Your task to perform on an android device: Open Chrome and go to the settings page Image 0: 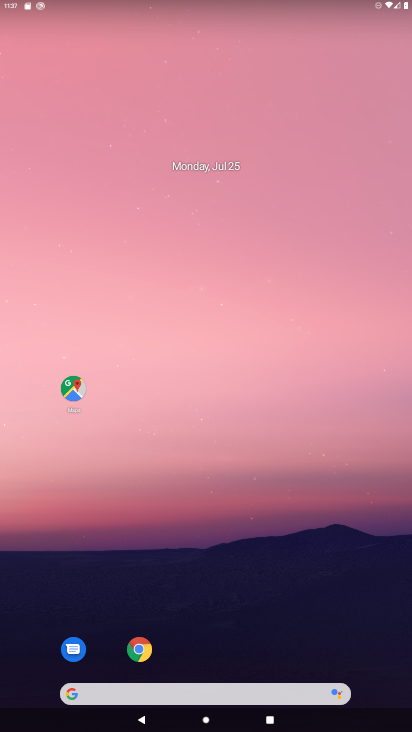
Step 0: click (143, 651)
Your task to perform on an android device: Open Chrome and go to the settings page Image 1: 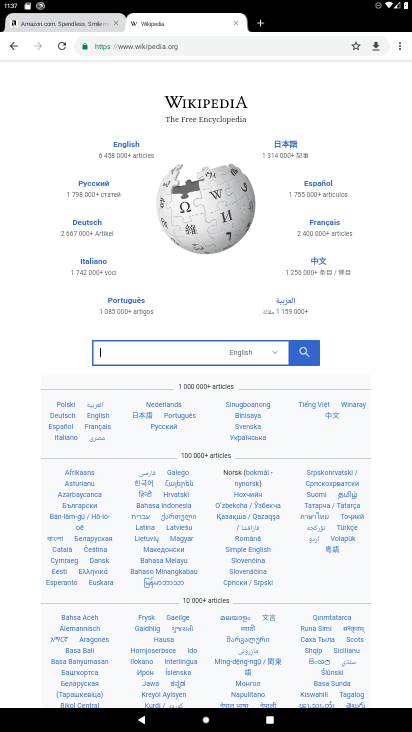
Step 1: click (398, 50)
Your task to perform on an android device: Open Chrome and go to the settings page Image 2: 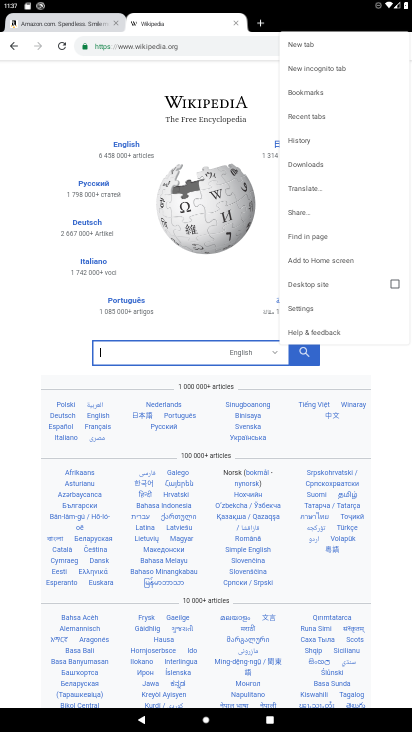
Step 2: click (302, 306)
Your task to perform on an android device: Open Chrome and go to the settings page Image 3: 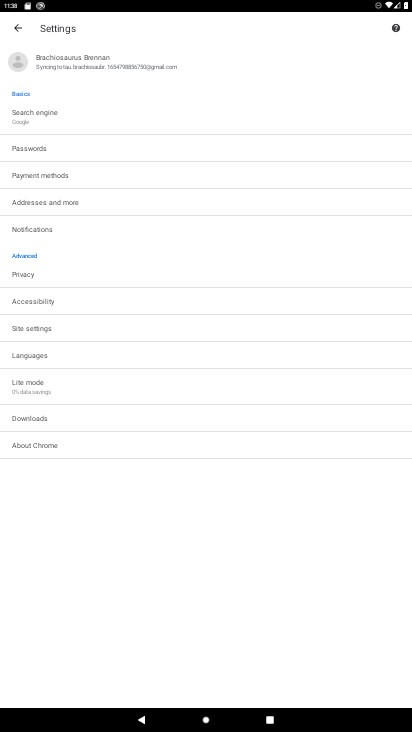
Step 3: task complete